Your task to perform on an android device: Go to Wikipedia Image 0: 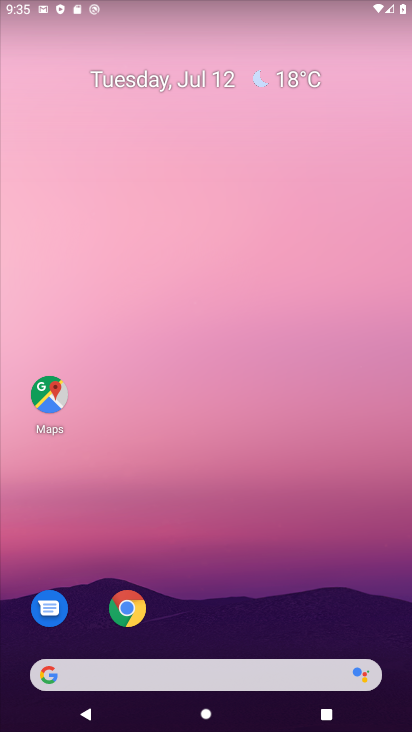
Step 0: click (223, 587)
Your task to perform on an android device: Go to Wikipedia Image 1: 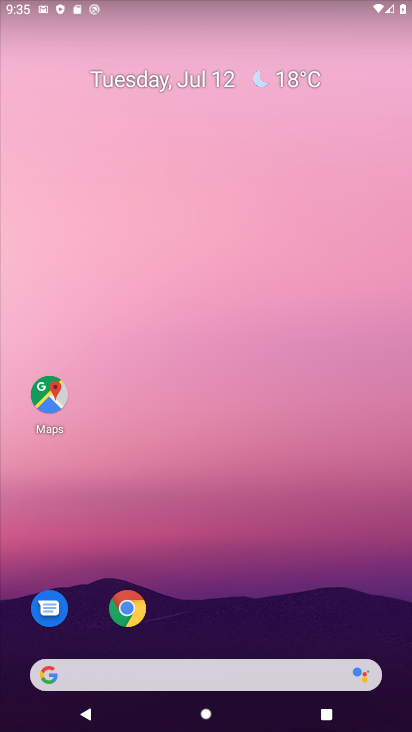
Step 1: click (223, 587)
Your task to perform on an android device: Go to Wikipedia Image 2: 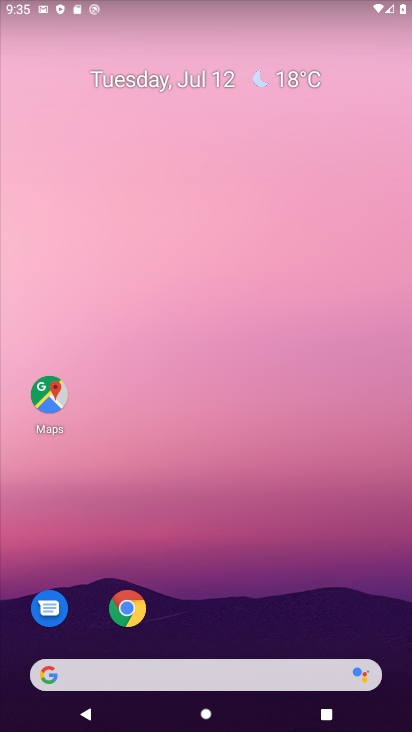
Step 2: click (130, 614)
Your task to perform on an android device: Go to Wikipedia Image 3: 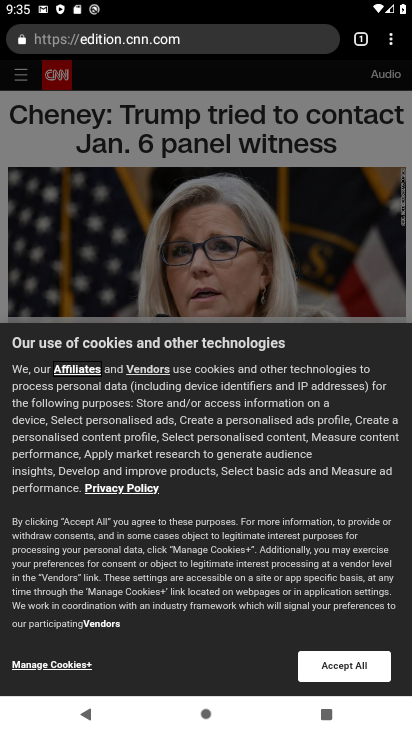
Step 3: click (395, 44)
Your task to perform on an android device: Go to Wikipedia Image 4: 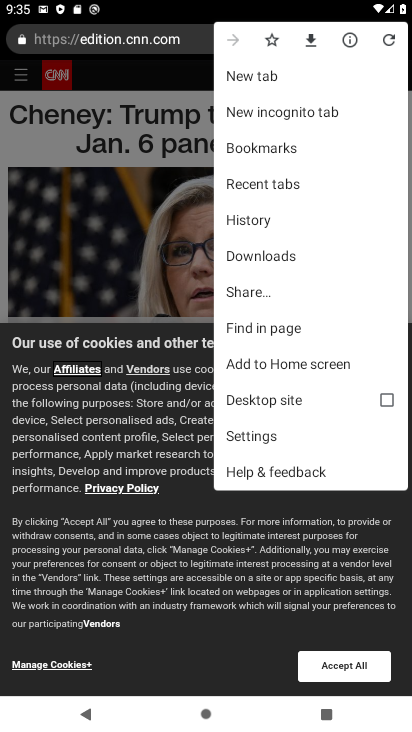
Step 4: click (272, 72)
Your task to perform on an android device: Go to Wikipedia Image 5: 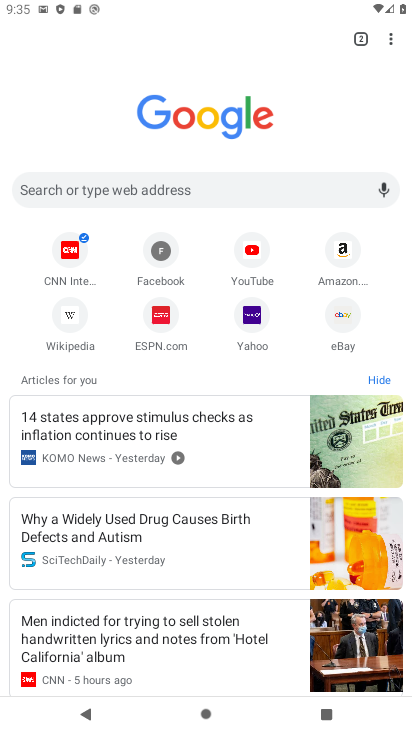
Step 5: click (64, 317)
Your task to perform on an android device: Go to Wikipedia Image 6: 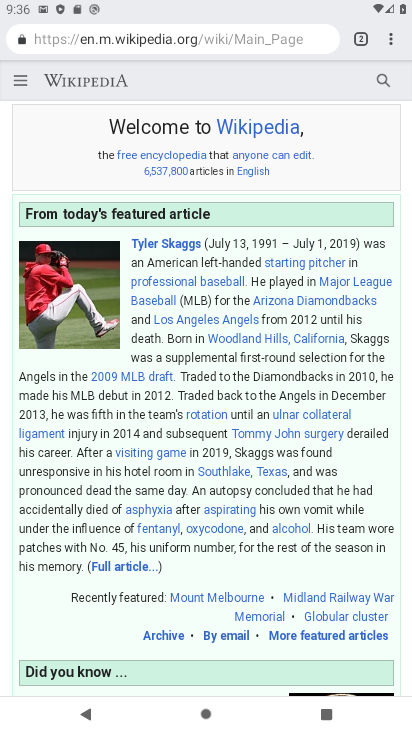
Step 6: task complete